Your task to perform on an android device: Open Google Image 0: 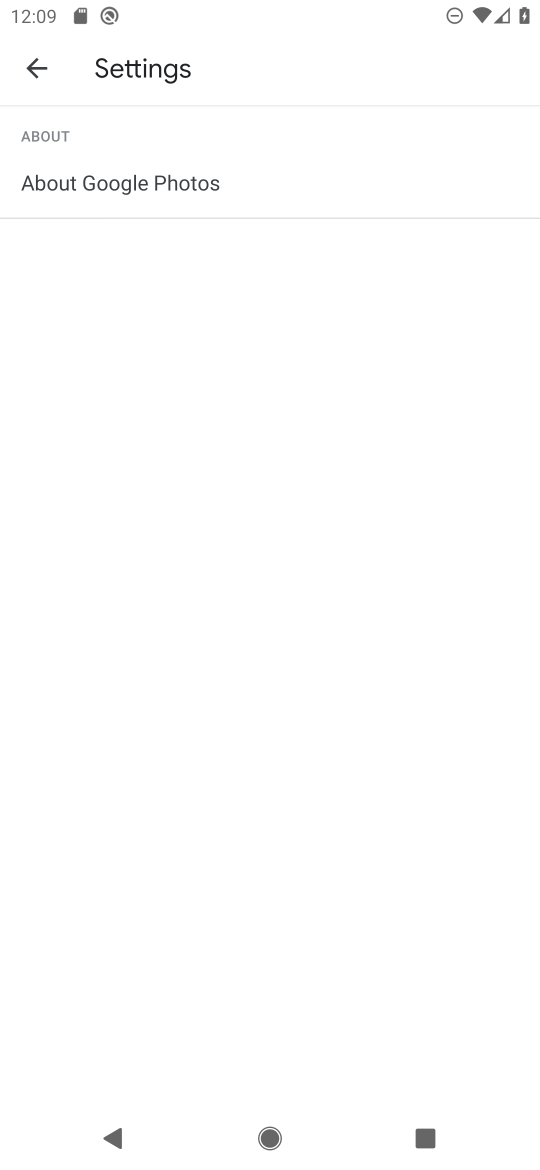
Step 0: press home button
Your task to perform on an android device: Open Google Image 1: 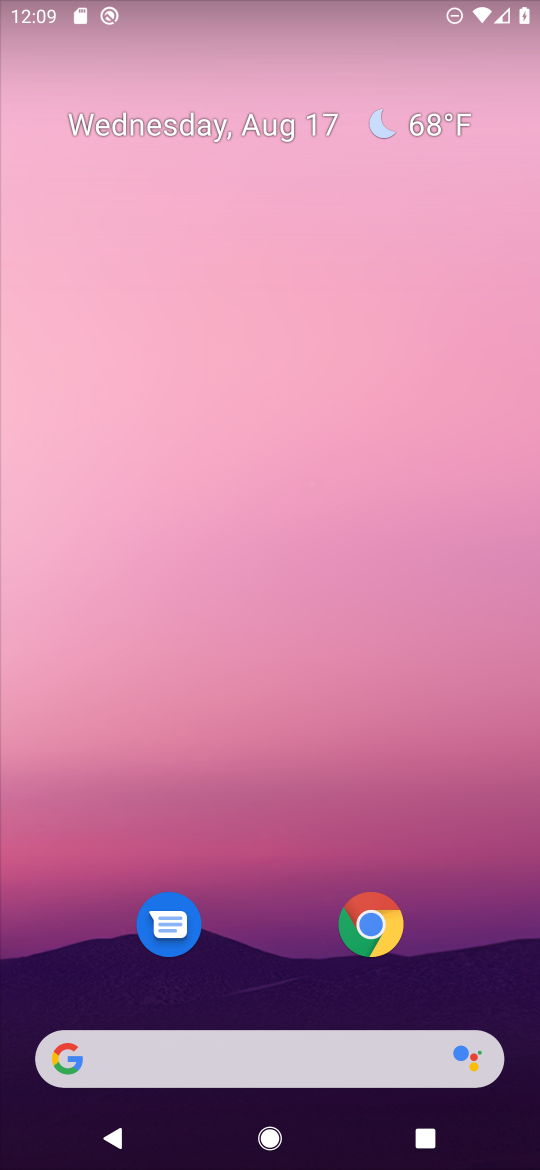
Step 1: click (261, 1058)
Your task to perform on an android device: Open Google Image 2: 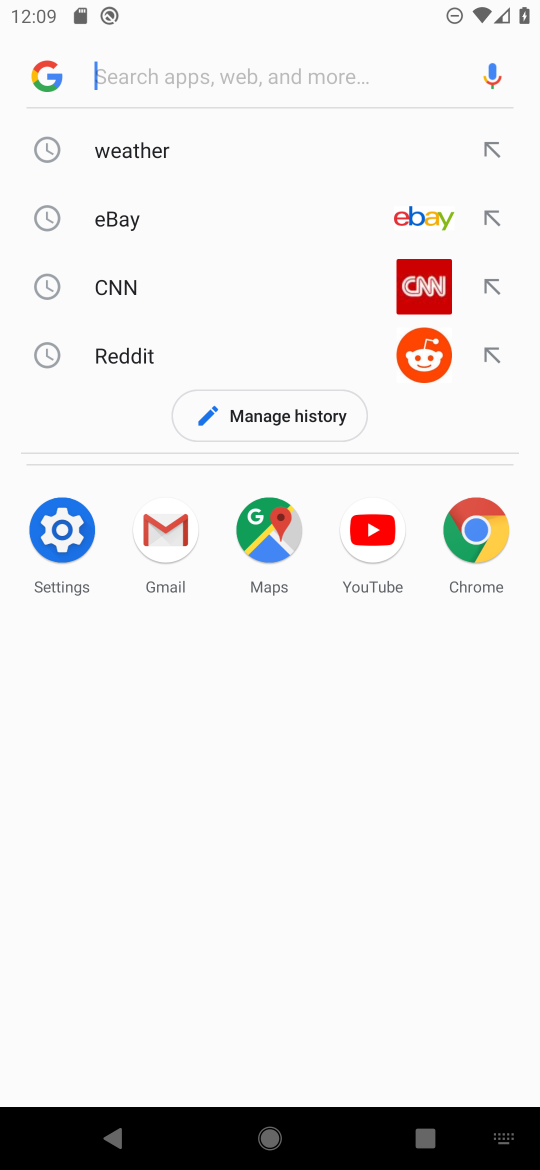
Step 2: task complete